Your task to perform on an android device: Search for seafood restaurants on Google Maps Image 0: 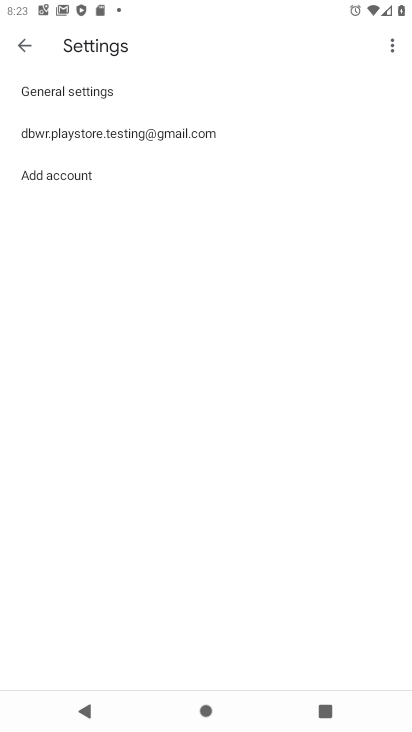
Step 0: press home button
Your task to perform on an android device: Search for seafood restaurants on Google Maps Image 1: 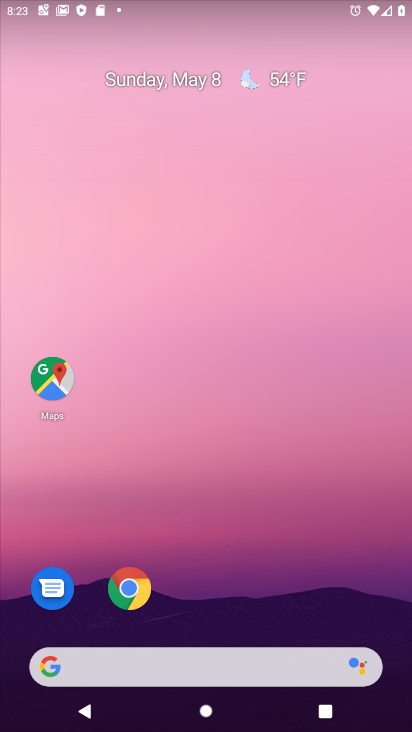
Step 1: click (58, 369)
Your task to perform on an android device: Search for seafood restaurants on Google Maps Image 2: 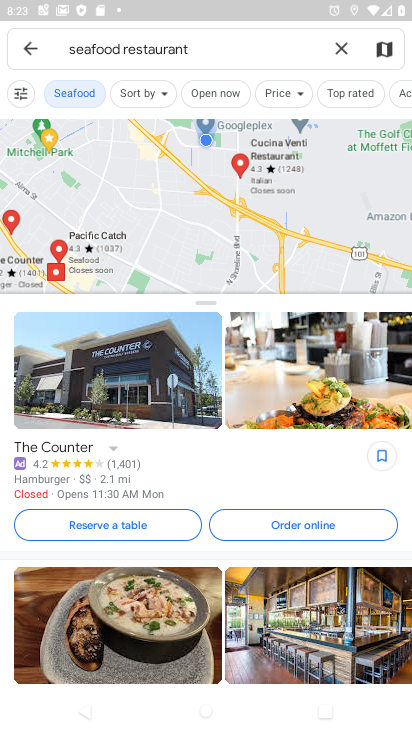
Step 2: task complete